Your task to perform on an android device: search for starred emails in the gmail app Image 0: 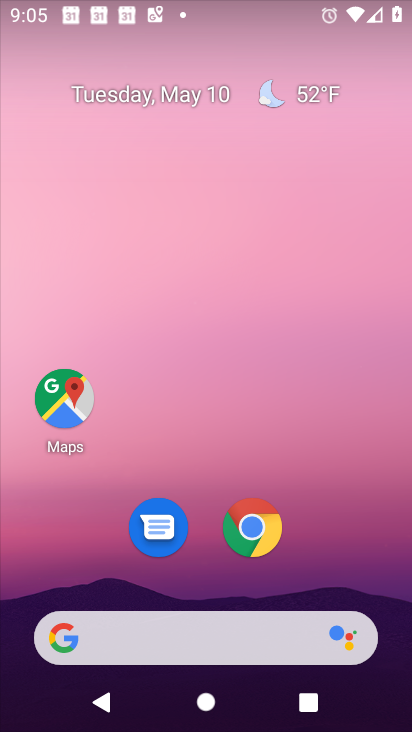
Step 0: drag from (335, 455) to (209, 117)
Your task to perform on an android device: search for starred emails in the gmail app Image 1: 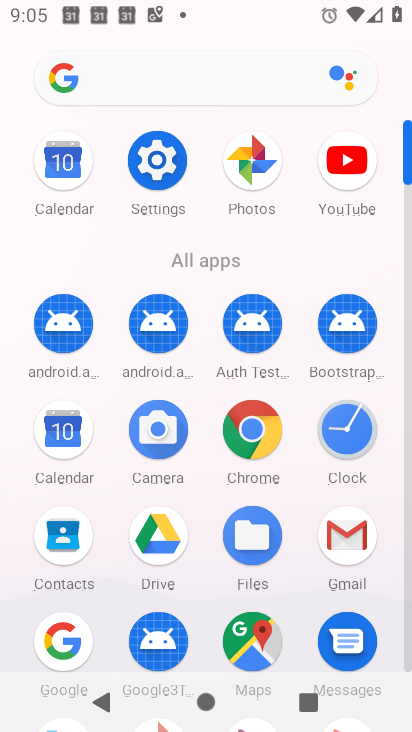
Step 1: click (345, 551)
Your task to perform on an android device: search for starred emails in the gmail app Image 2: 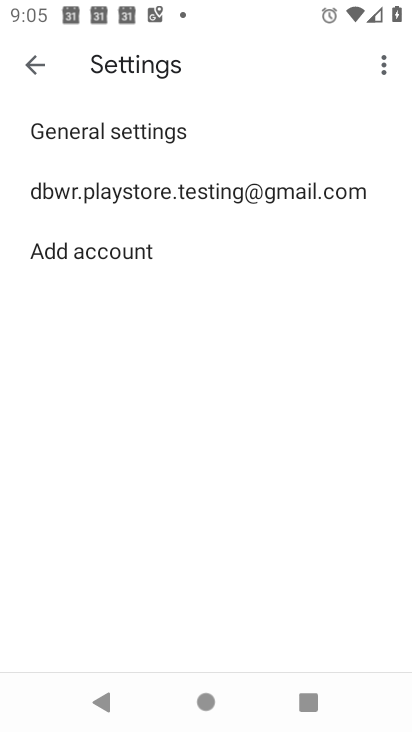
Step 2: press back button
Your task to perform on an android device: search for starred emails in the gmail app Image 3: 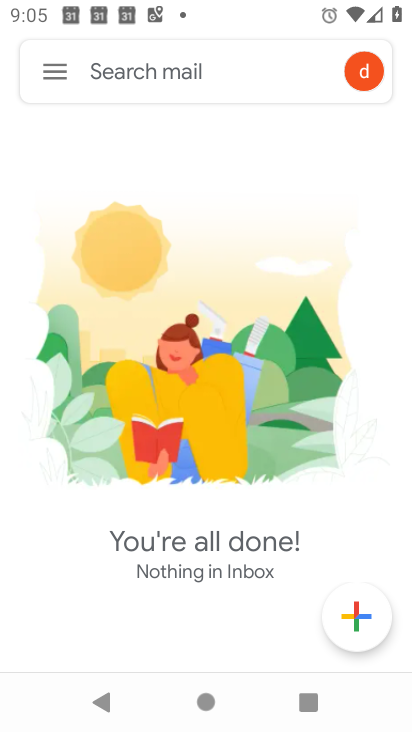
Step 3: click (69, 76)
Your task to perform on an android device: search for starred emails in the gmail app Image 4: 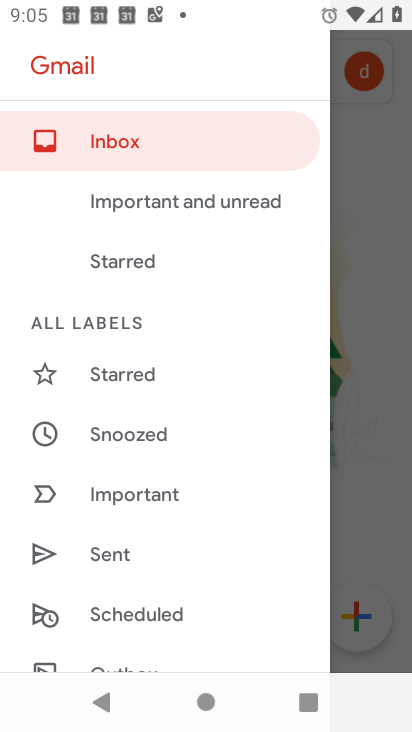
Step 4: click (133, 373)
Your task to perform on an android device: search for starred emails in the gmail app Image 5: 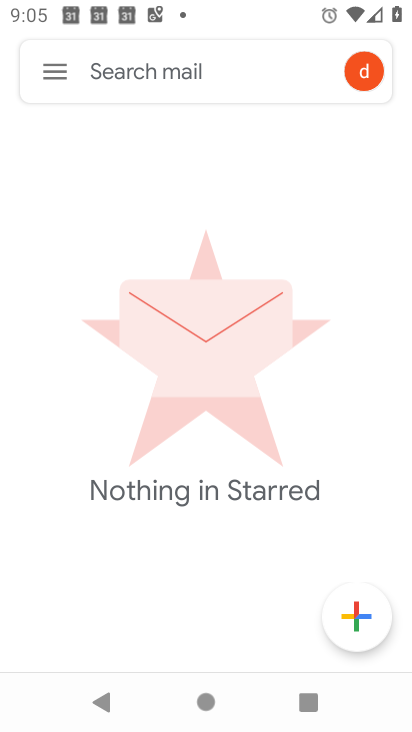
Step 5: task complete